Your task to perform on an android device: toggle data saver in the chrome app Image 0: 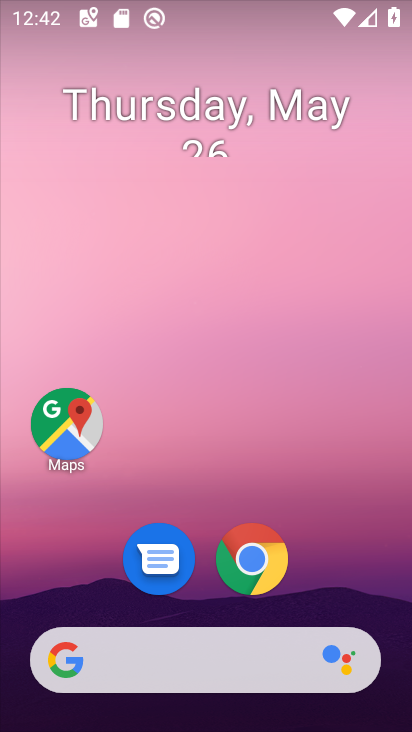
Step 0: press home button
Your task to perform on an android device: toggle data saver in the chrome app Image 1: 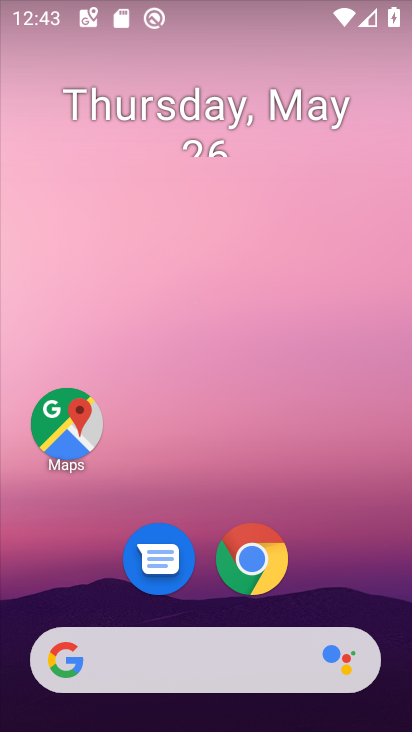
Step 1: click (252, 565)
Your task to perform on an android device: toggle data saver in the chrome app Image 2: 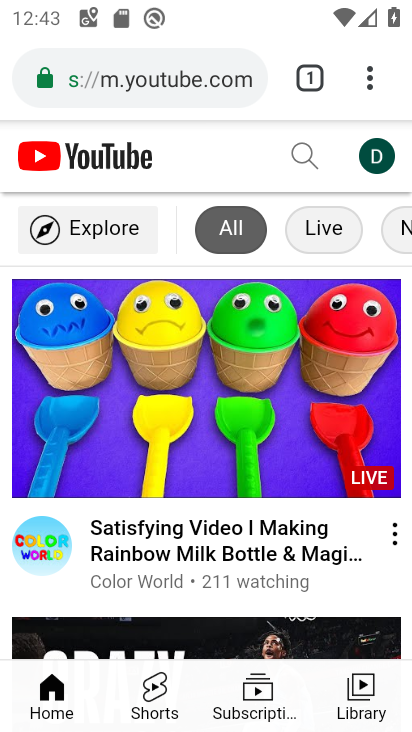
Step 2: drag from (376, 73) to (122, 614)
Your task to perform on an android device: toggle data saver in the chrome app Image 3: 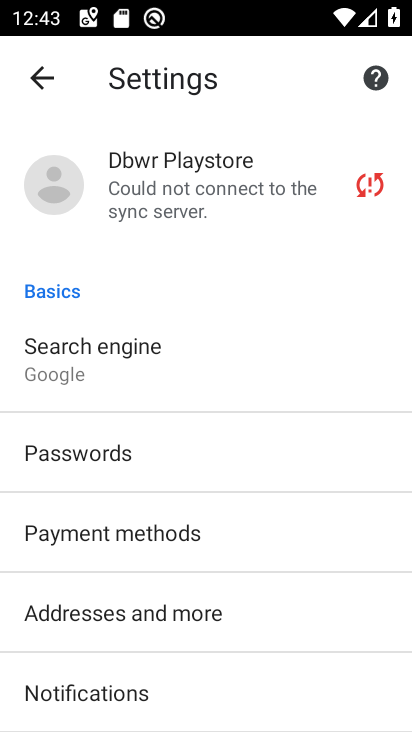
Step 3: drag from (292, 687) to (346, 215)
Your task to perform on an android device: toggle data saver in the chrome app Image 4: 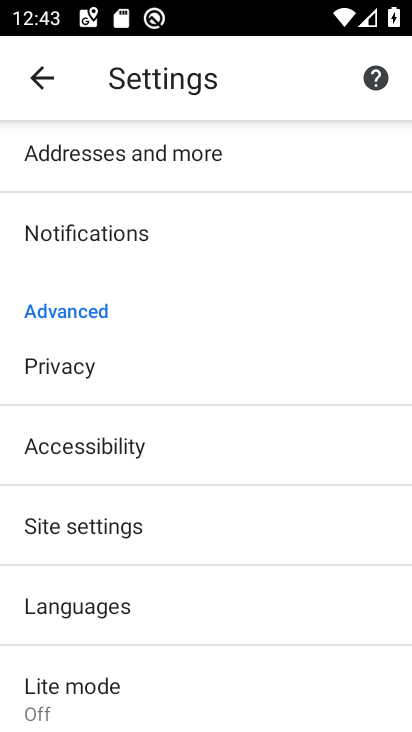
Step 4: click (70, 698)
Your task to perform on an android device: toggle data saver in the chrome app Image 5: 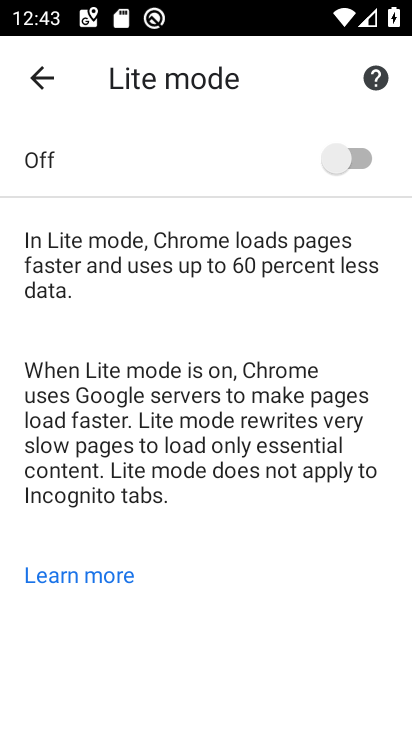
Step 5: click (364, 159)
Your task to perform on an android device: toggle data saver in the chrome app Image 6: 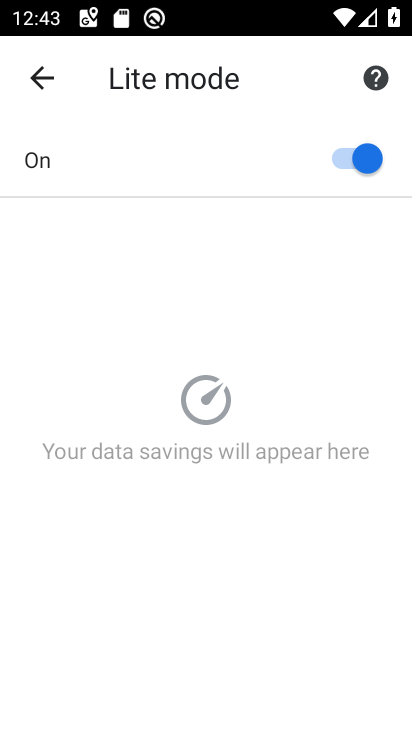
Step 6: task complete